Your task to perform on an android device: set the timer Image 0: 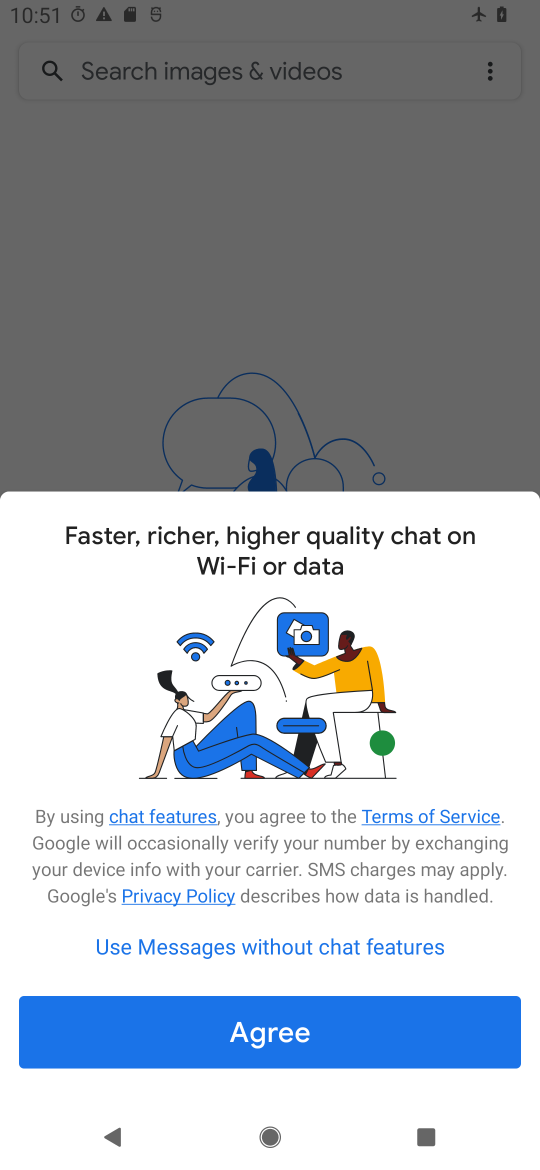
Step 0: press home button
Your task to perform on an android device: set the timer Image 1: 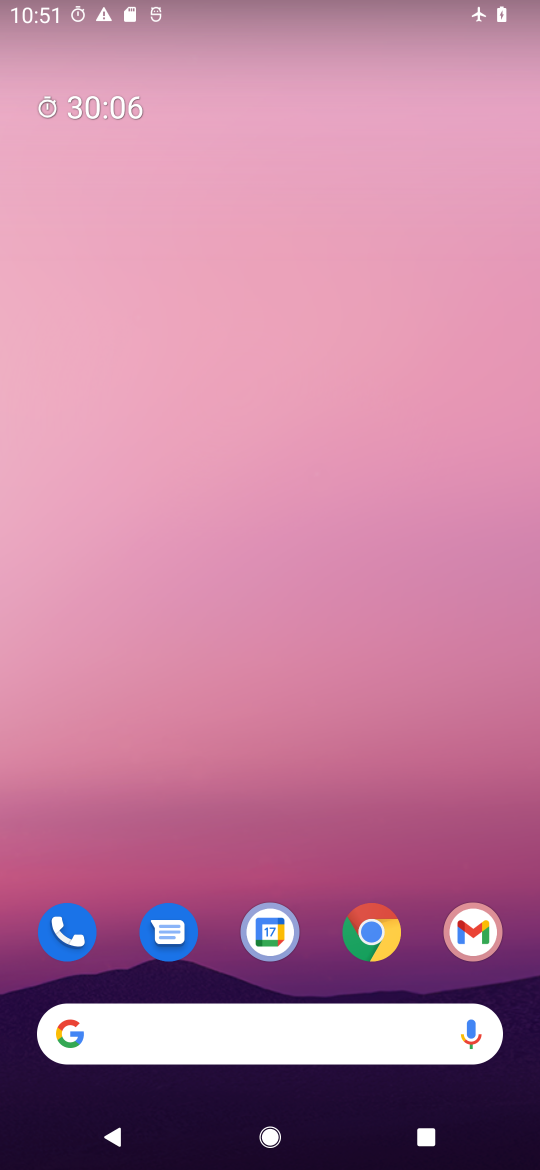
Step 1: click (305, 132)
Your task to perform on an android device: set the timer Image 2: 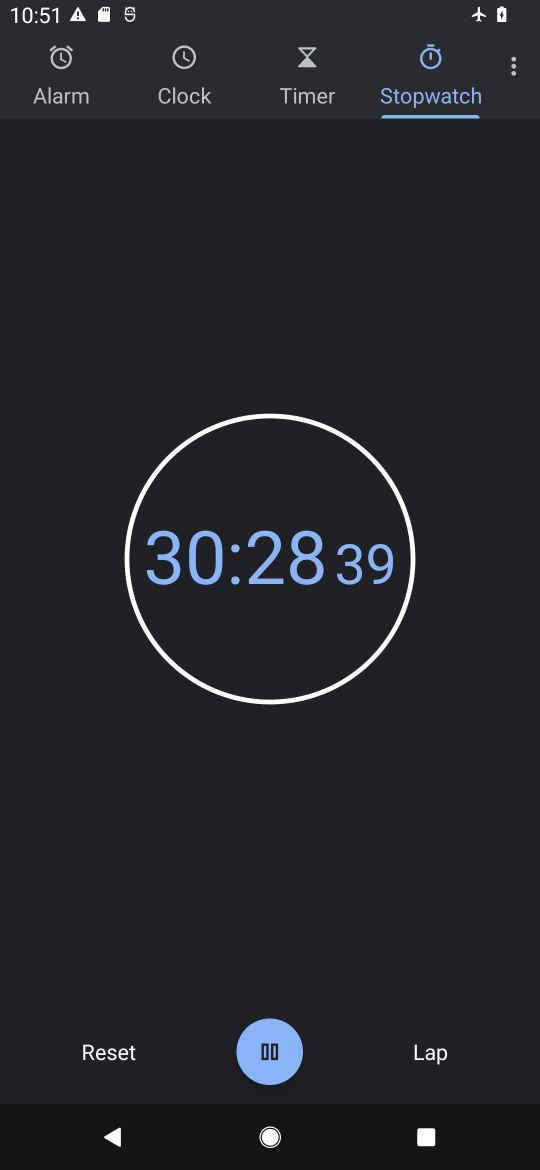
Step 2: click (321, 82)
Your task to perform on an android device: set the timer Image 3: 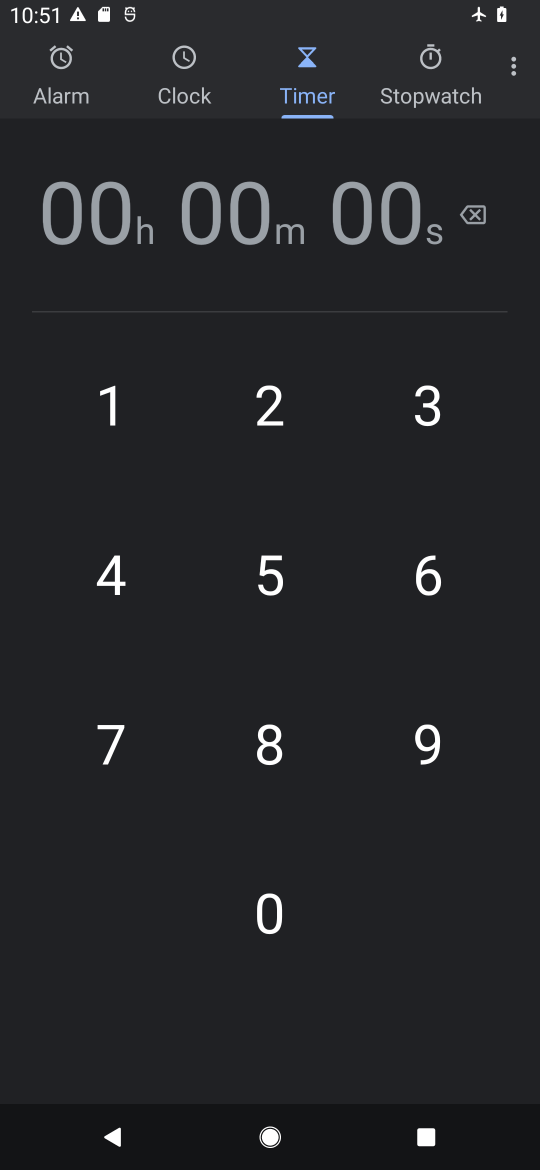
Step 3: type "8"
Your task to perform on an android device: set the timer Image 4: 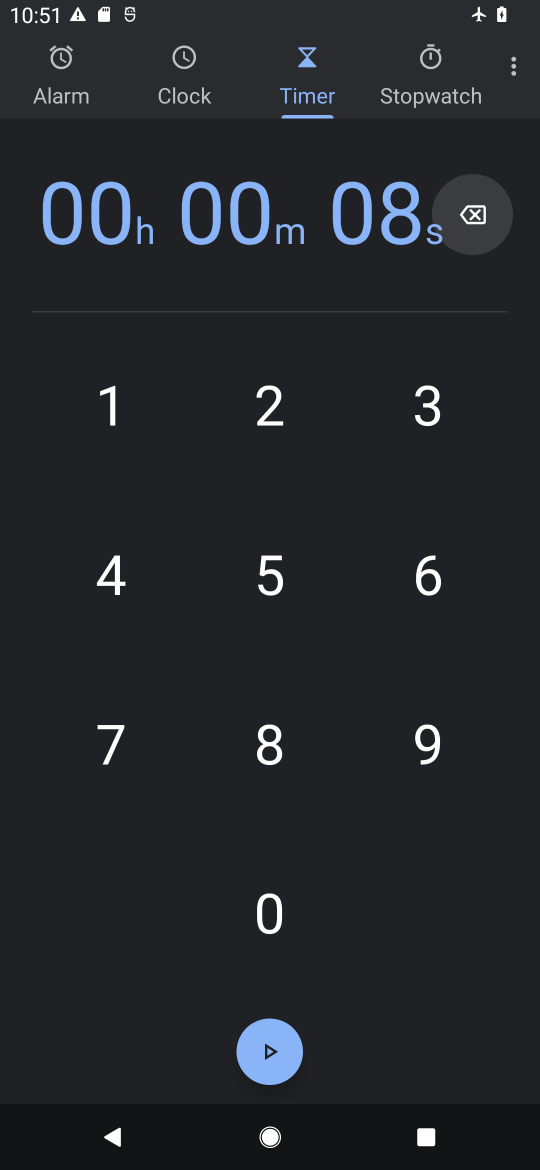
Step 4: click (295, 1051)
Your task to perform on an android device: set the timer Image 5: 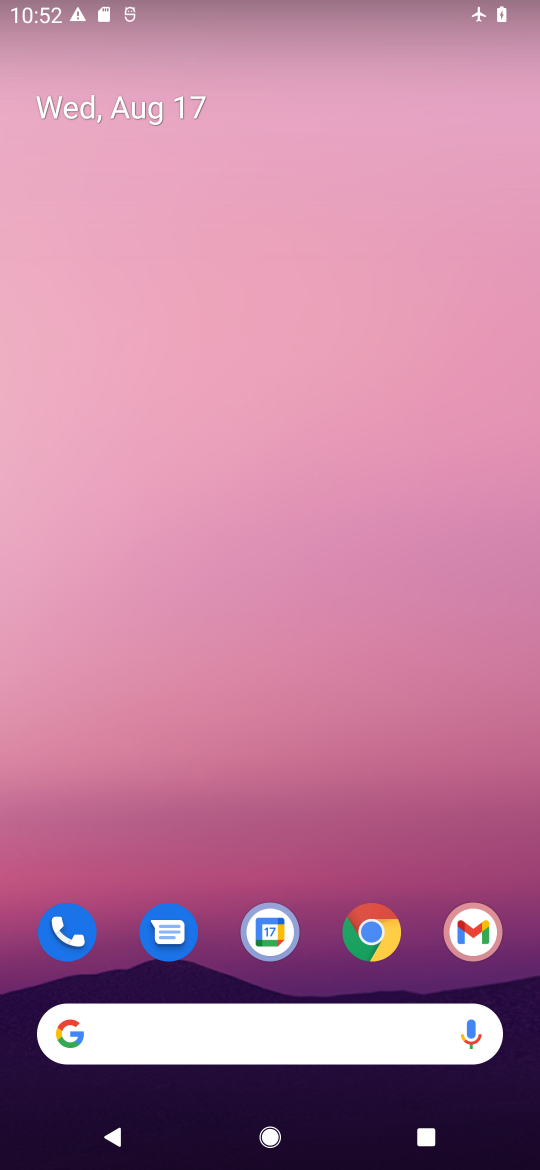
Step 5: task complete